Your task to perform on an android device: allow cookies in the chrome app Image 0: 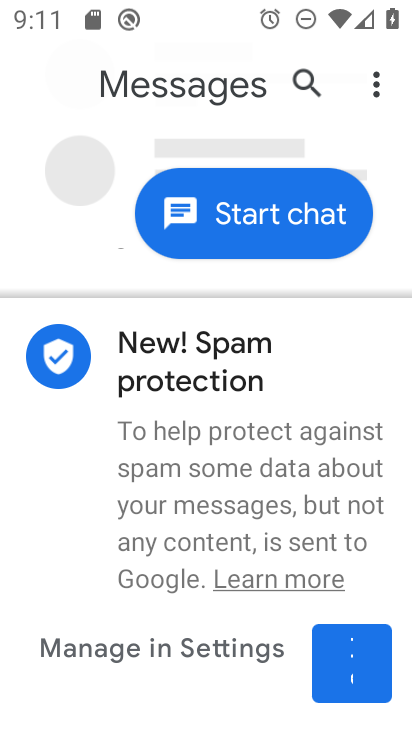
Step 0: press home button
Your task to perform on an android device: allow cookies in the chrome app Image 1: 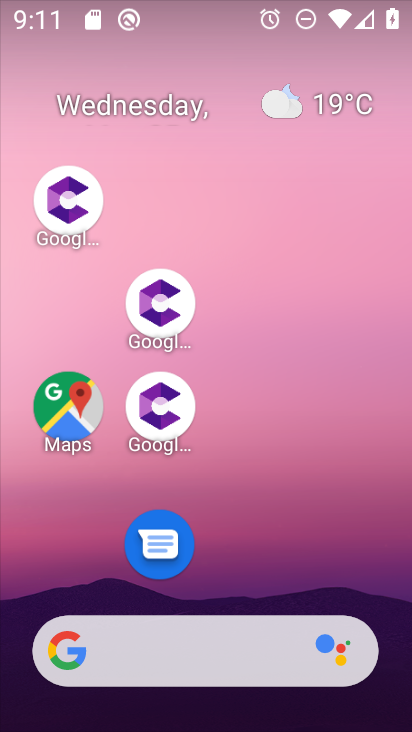
Step 1: drag from (333, 546) to (193, 23)
Your task to perform on an android device: allow cookies in the chrome app Image 2: 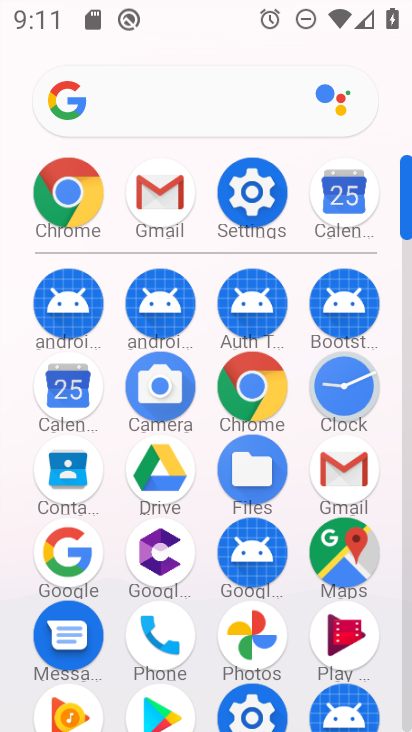
Step 2: click (256, 373)
Your task to perform on an android device: allow cookies in the chrome app Image 3: 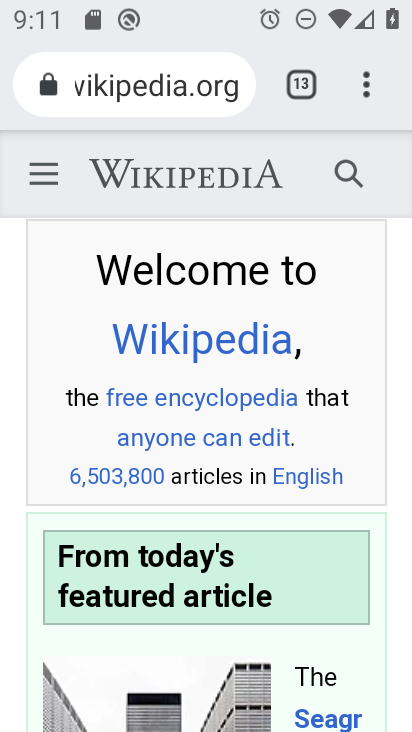
Step 3: click (365, 80)
Your task to perform on an android device: allow cookies in the chrome app Image 4: 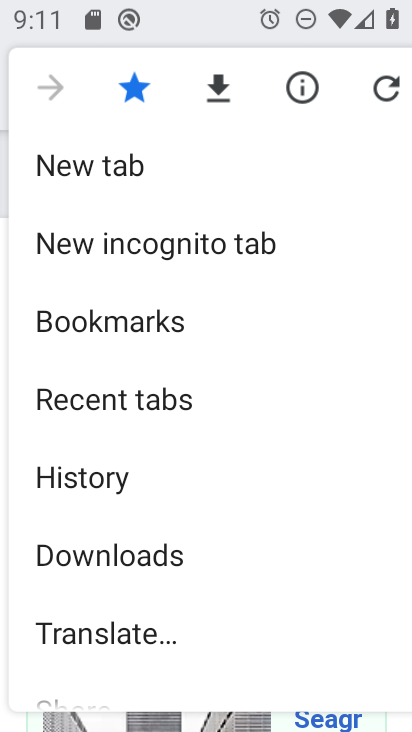
Step 4: drag from (204, 510) to (184, 132)
Your task to perform on an android device: allow cookies in the chrome app Image 5: 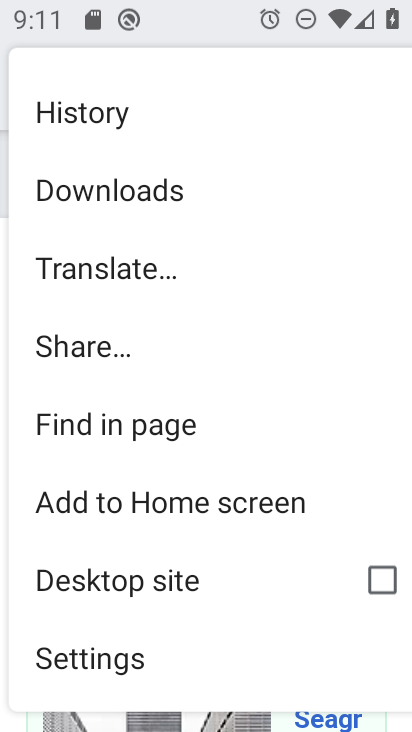
Step 5: click (120, 645)
Your task to perform on an android device: allow cookies in the chrome app Image 6: 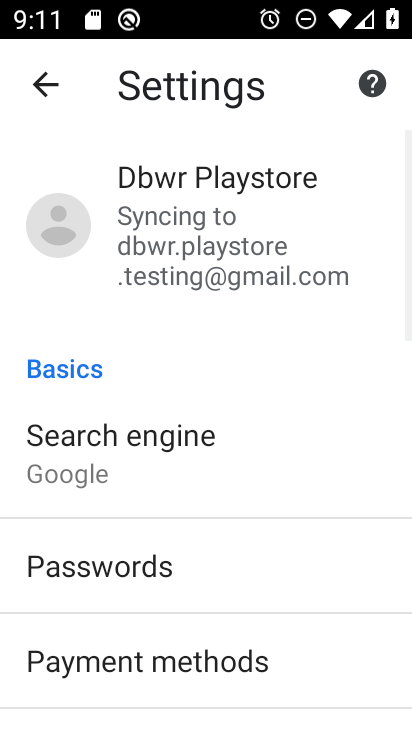
Step 6: drag from (192, 537) to (157, 208)
Your task to perform on an android device: allow cookies in the chrome app Image 7: 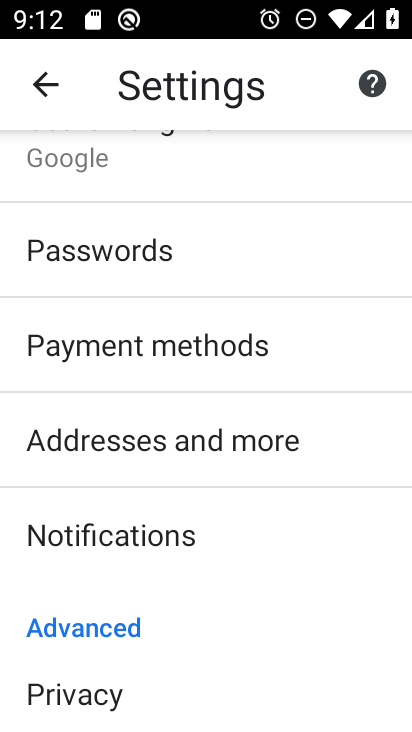
Step 7: drag from (247, 545) to (235, 116)
Your task to perform on an android device: allow cookies in the chrome app Image 8: 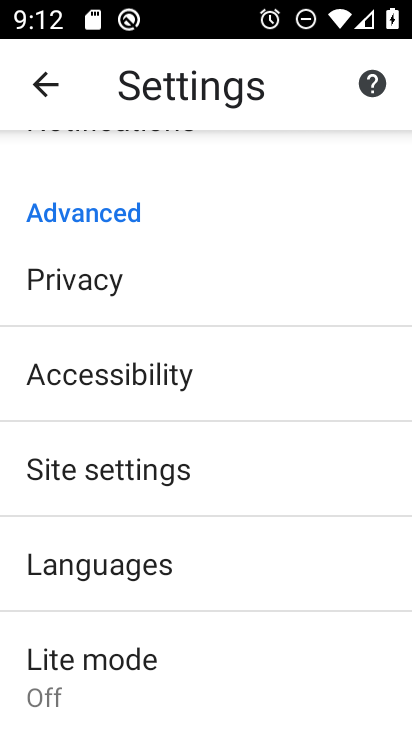
Step 8: click (88, 458)
Your task to perform on an android device: allow cookies in the chrome app Image 9: 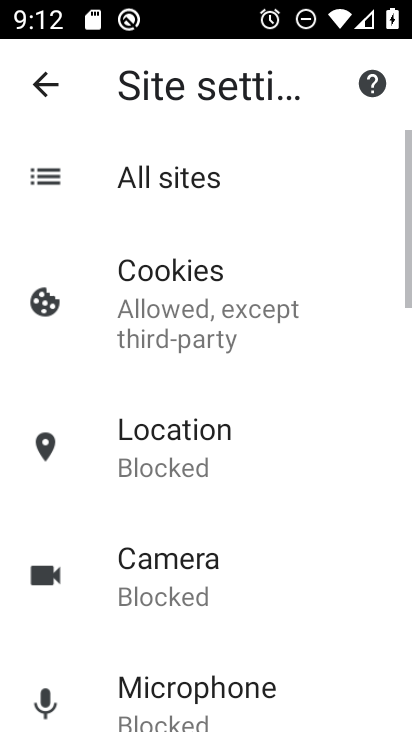
Step 9: click (135, 284)
Your task to perform on an android device: allow cookies in the chrome app Image 10: 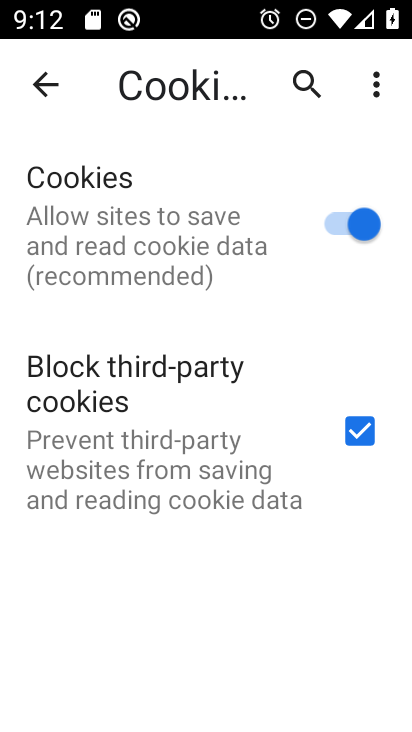
Step 10: task complete